Your task to perform on an android device: Is it going to rain today? Image 0: 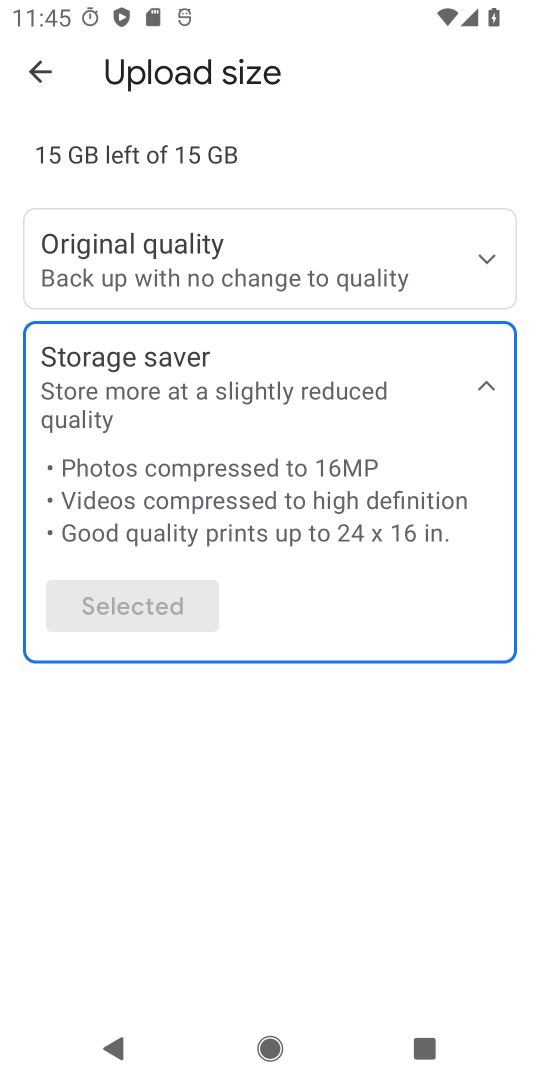
Step 0: press home button
Your task to perform on an android device: Is it going to rain today? Image 1: 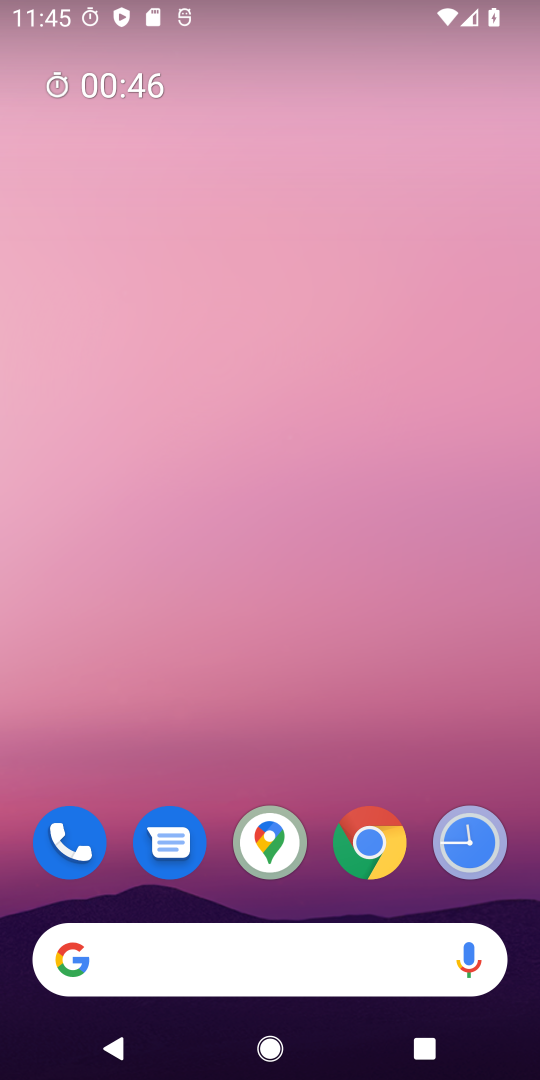
Step 1: click (289, 930)
Your task to perform on an android device: Is it going to rain today? Image 2: 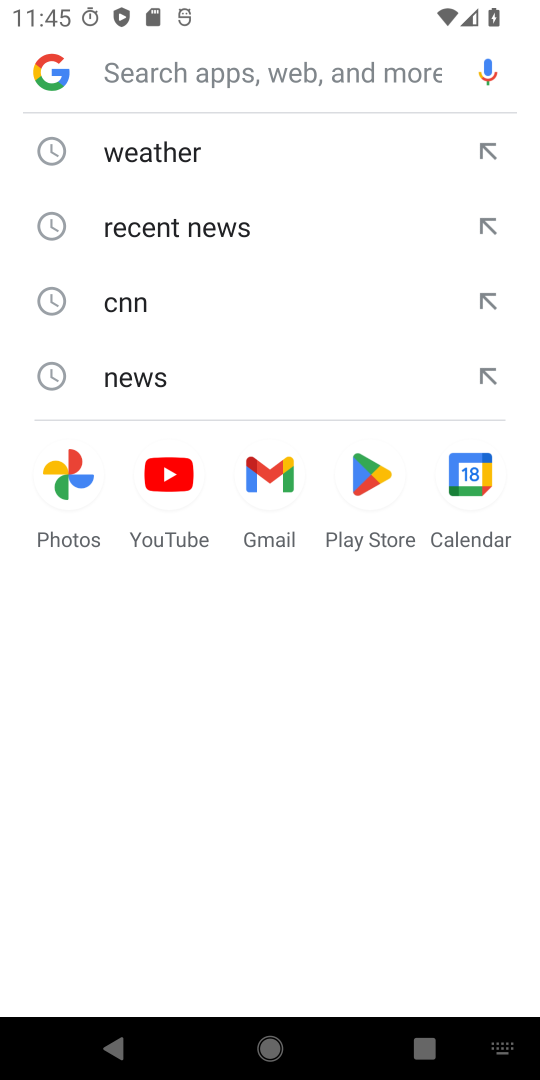
Step 2: click (277, 133)
Your task to perform on an android device: Is it going to rain today? Image 3: 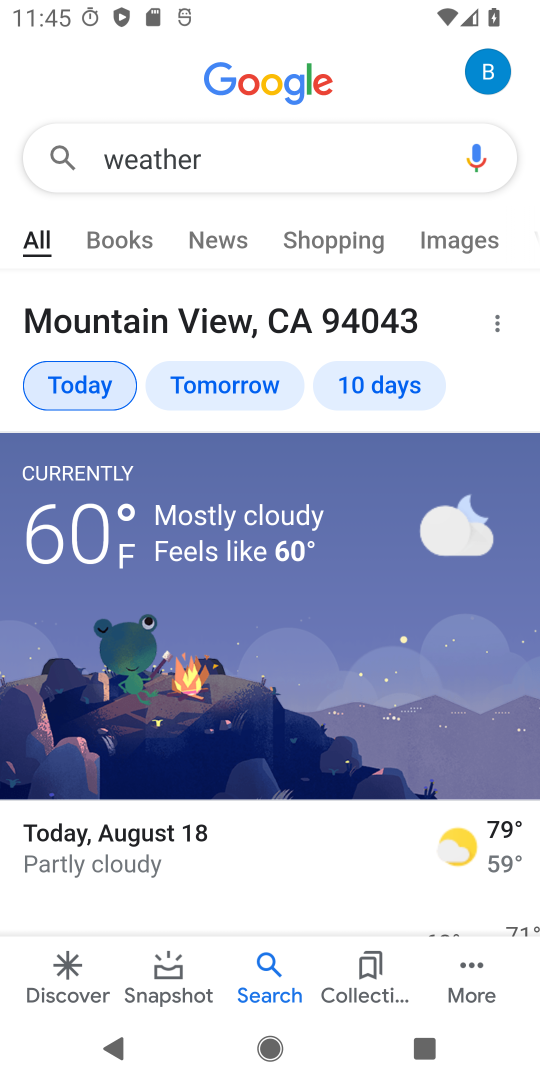
Step 3: task complete